Your task to perform on an android device: Go to CNN.com Image 0: 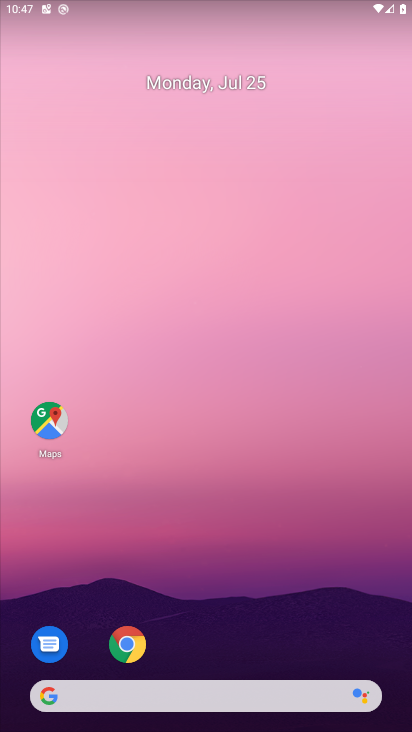
Step 0: drag from (272, 592) to (338, 126)
Your task to perform on an android device: Go to CNN.com Image 1: 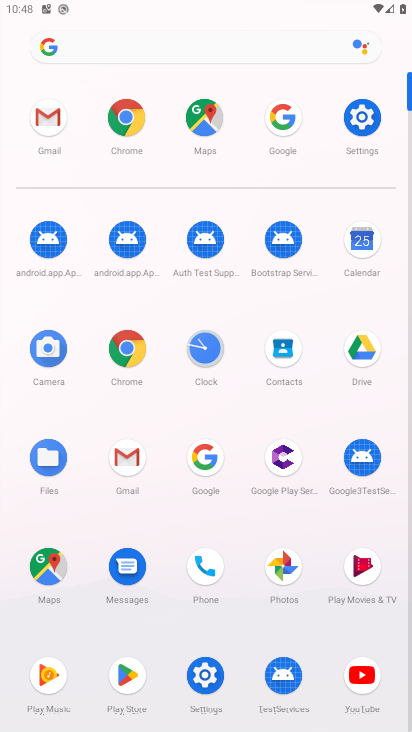
Step 1: click (130, 338)
Your task to perform on an android device: Go to CNN.com Image 2: 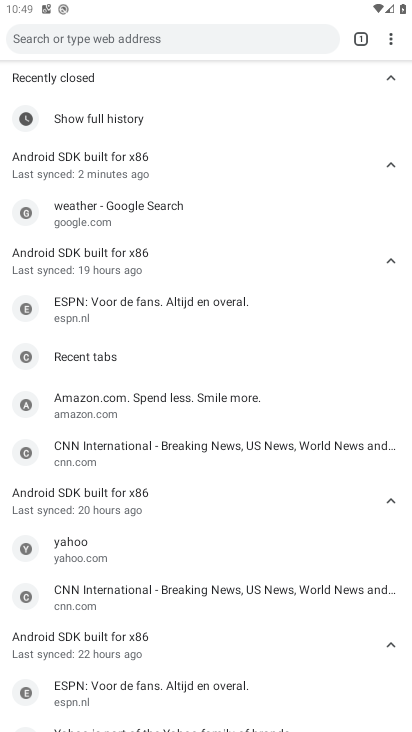
Step 2: click (123, 34)
Your task to perform on an android device: Go to CNN.com Image 3: 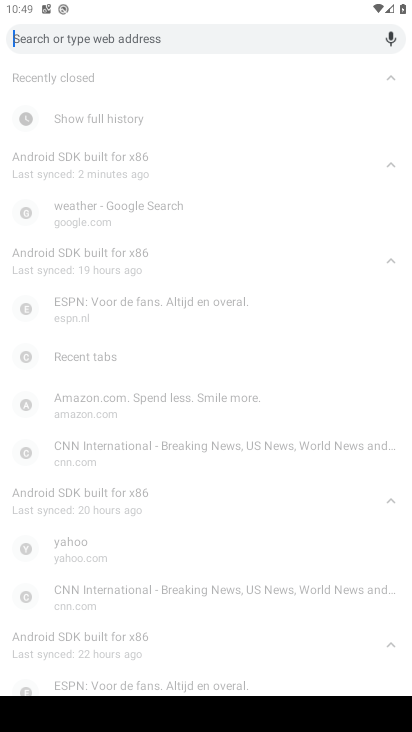
Step 3: type " CNN.com"
Your task to perform on an android device: Go to CNN.com Image 4: 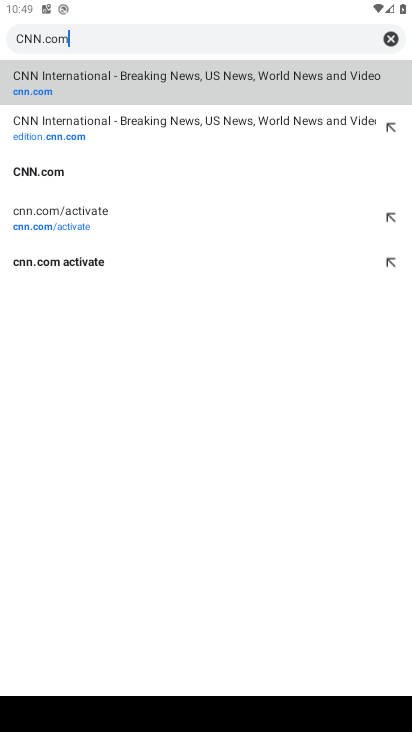
Step 4: click (37, 94)
Your task to perform on an android device: Go to CNN.com Image 5: 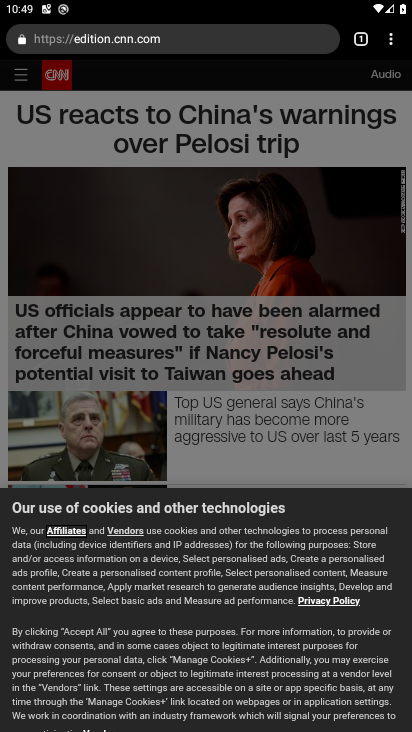
Step 5: task complete